Your task to perform on an android device: Open the phone app and click the voicemail tab. Image 0: 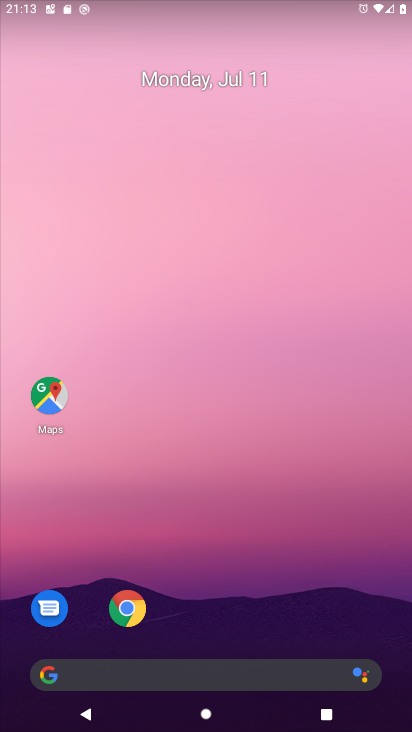
Step 0: drag from (227, 625) to (207, 265)
Your task to perform on an android device: Open the phone app and click the voicemail tab. Image 1: 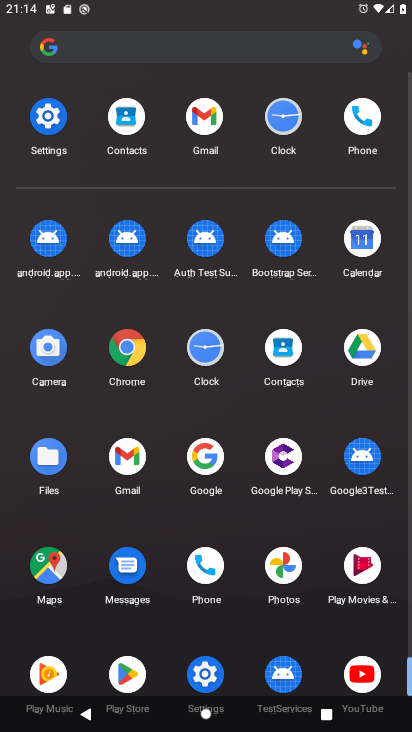
Step 1: click (352, 134)
Your task to perform on an android device: Open the phone app and click the voicemail tab. Image 2: 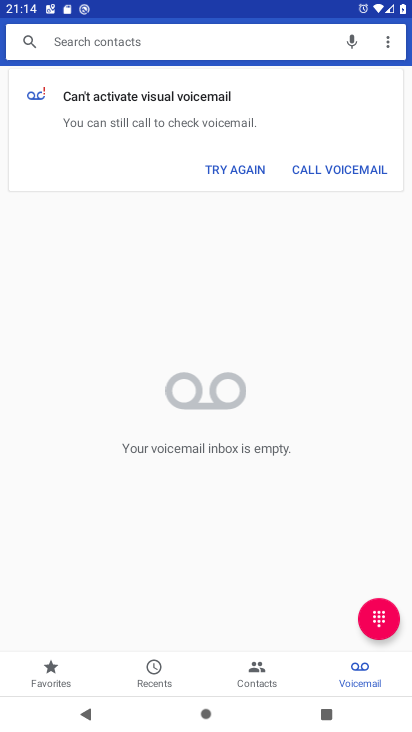
Step 2: task complete